Your task to perform on an android device: check the backup settings in the google photos Image 0: 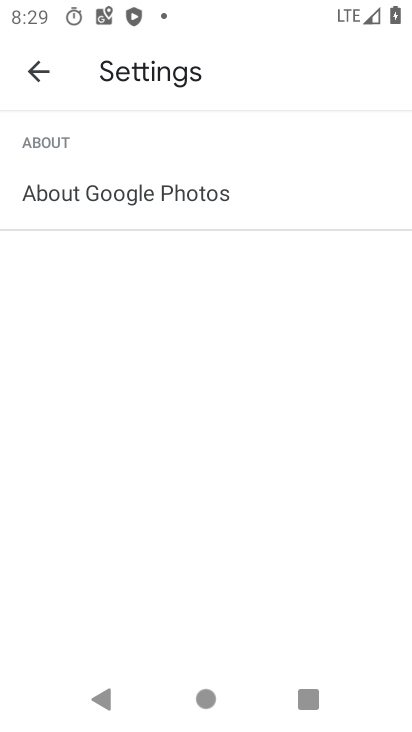
Step 0: press home button
Your task to perform on an android device: check the backup settings in the google photos Image 1: 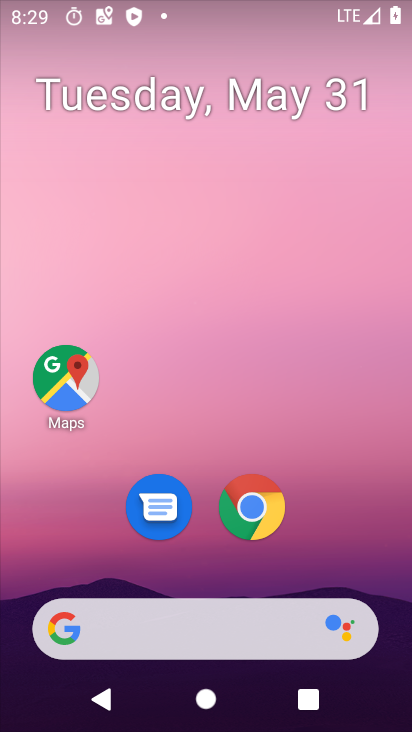
Step 1: drag from (3, 651) to (239, 157)
Your task to perform on an android device: check the backup settings in the google photos Image 2: 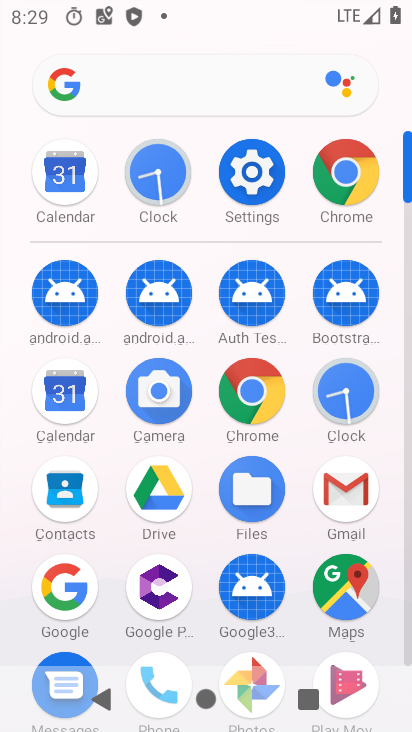
Step 2: click (241, 658)
Your task to perform on an android device: check the backup settings in the google photos Image 3: 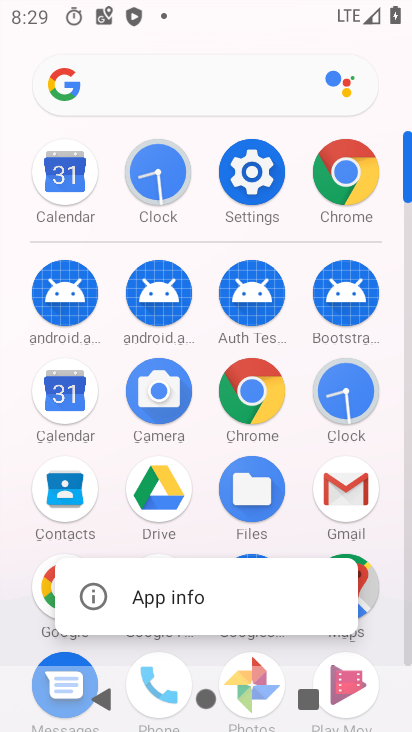
Step 3: drag from (10, 506) to (127, 218)
Your task to perform on an android device: check the backup settings in the google photos Image 4: 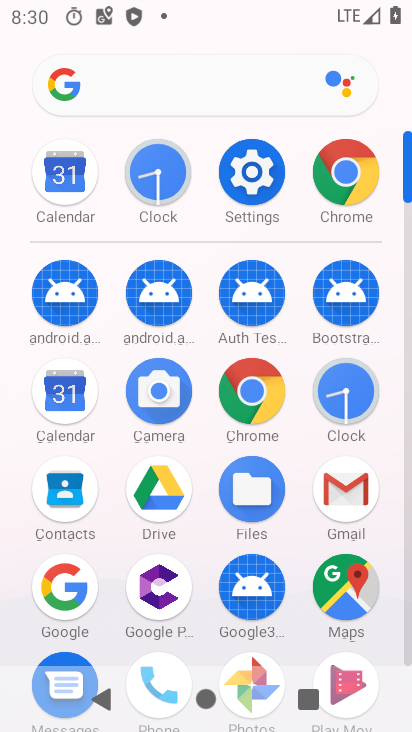
Step 4: click (268, 660)
Your task to perform on an android device: check the backup settings in the google photos Image 5: 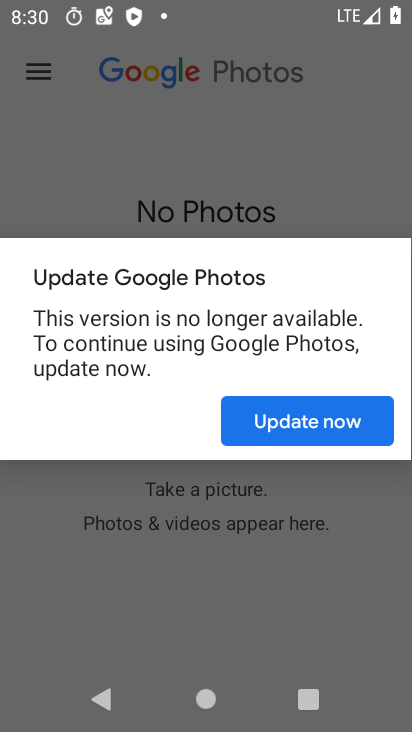
Step 5: click (303, 426)
Your task to perform on an android device: check the backup settings in the google photos Image 6: 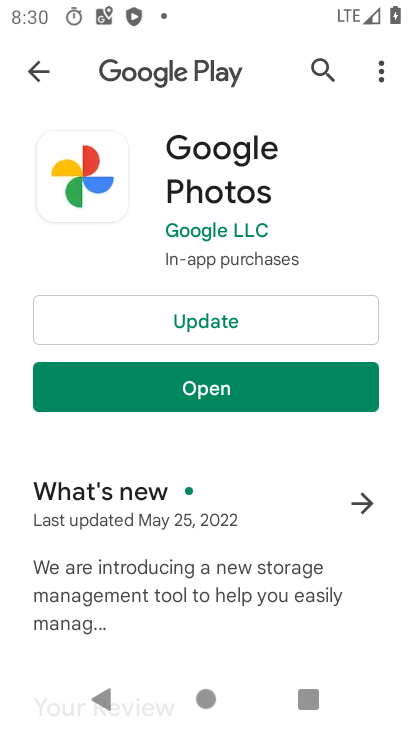
Step 6: click (147, 403)
Your task to perform on an android device: check the backup settings in the google photos Image 7: 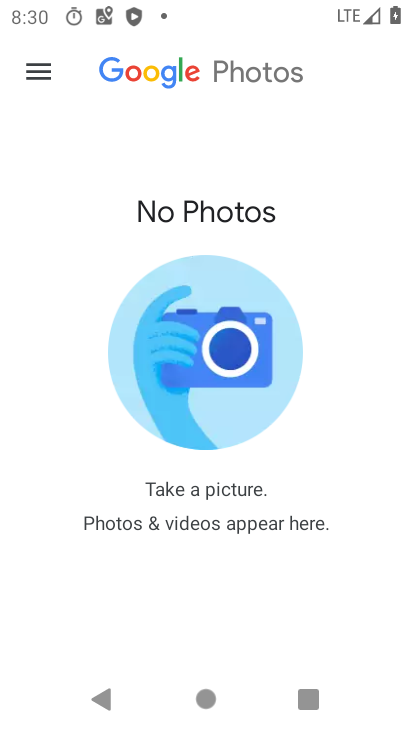
Step 7: click (30, 74)
Your task to perform on an android device: check the backup settings in the google photos Image 8: 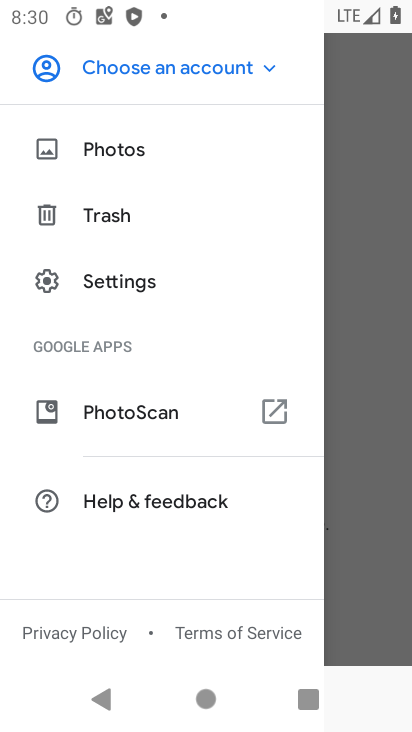
Step 8: click (157, 286)
Your task to perform on an android device: check the backup settings in the google photos Image 9: 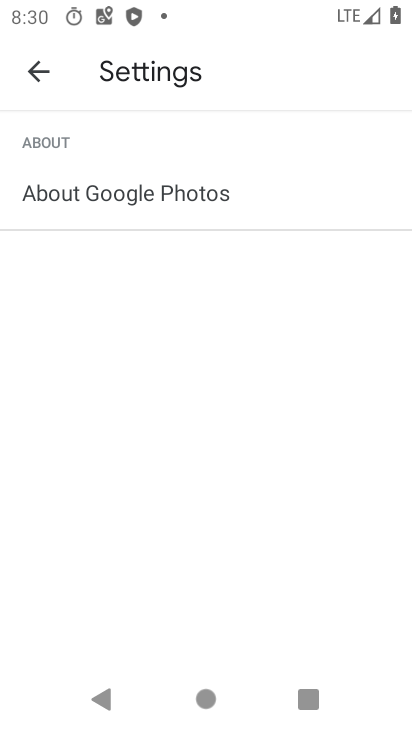
Step 9: click (44, 81)
Your task to perform on an android device: check the backup settings in the google photos Image 10: 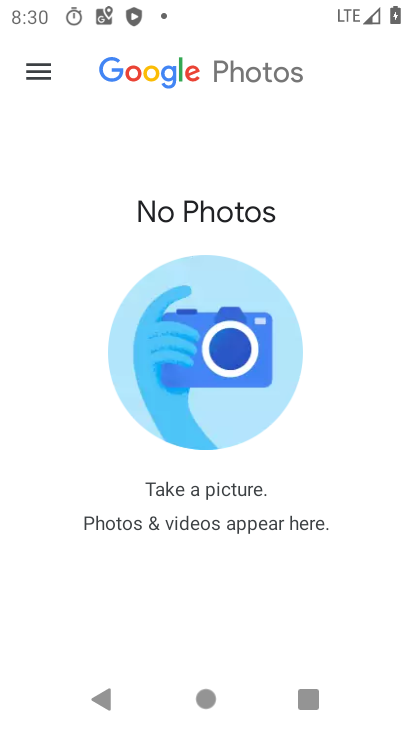
Step 10: task complete